Your task to perform on an android device: Go to battery settings Image 0: 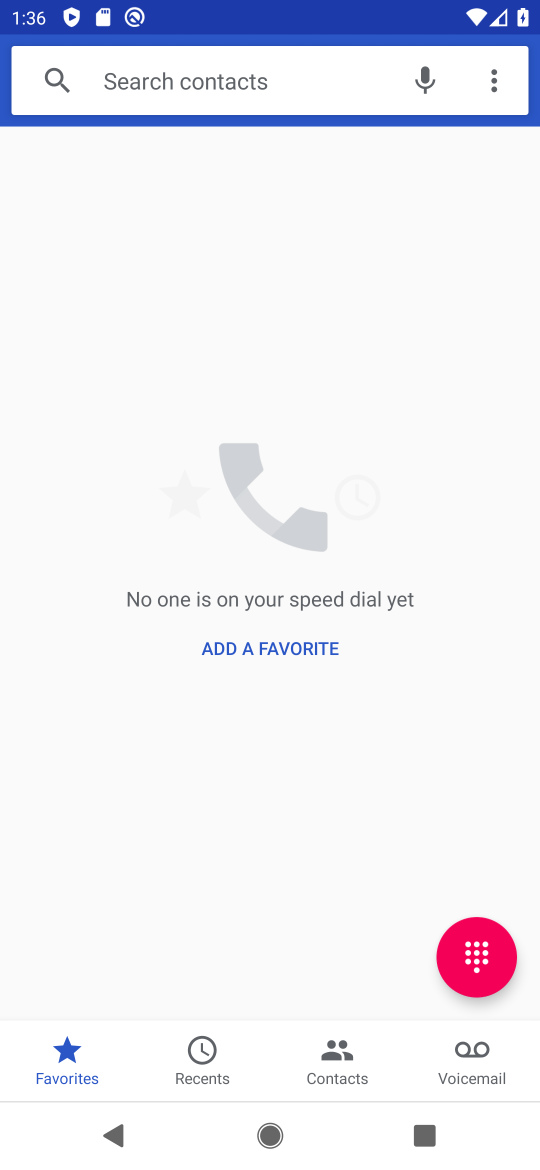
Step 0: press home button
Your task to perform on an android device: Go to battery settings Image 1: 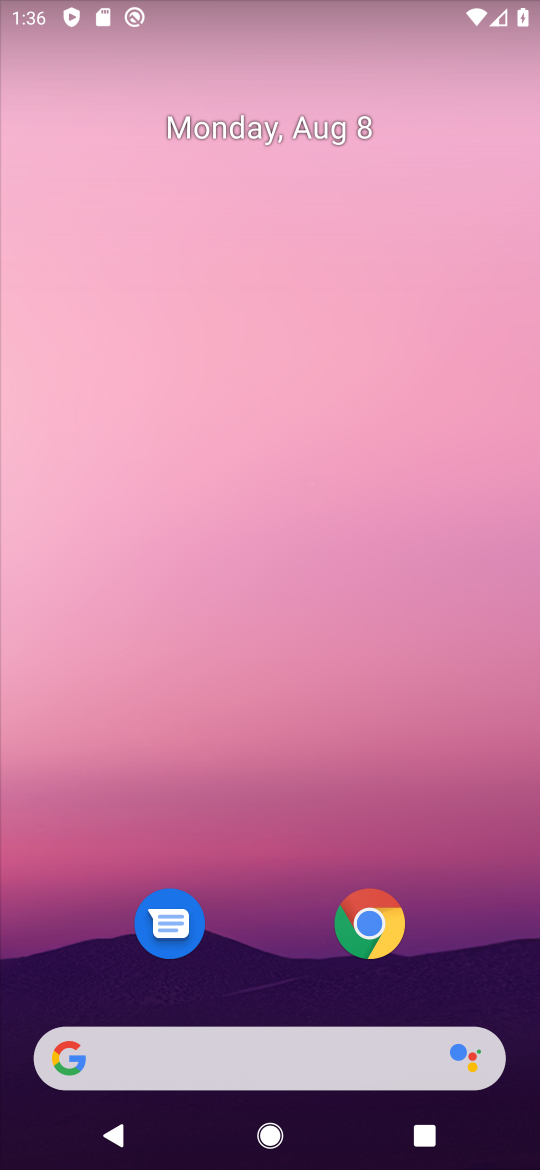
Step 1: drag from (225, 787) to (357, 110)
Your task to perform on an android device: Go to battery settings Image 2: 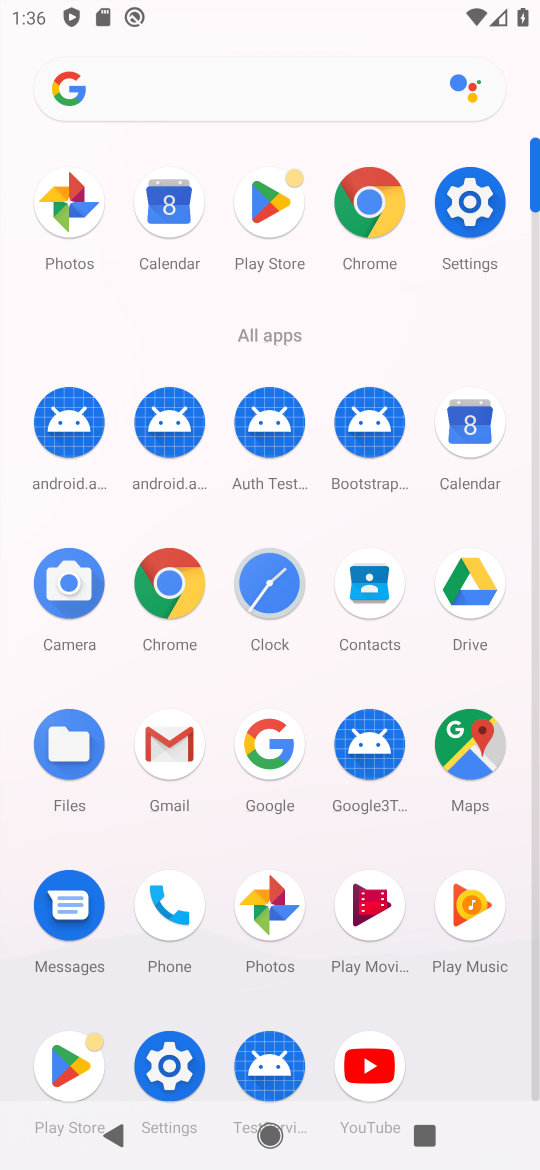
Step 2: click (476, 221)
Your task to perform on an android device: Go to battery settings Image 3: 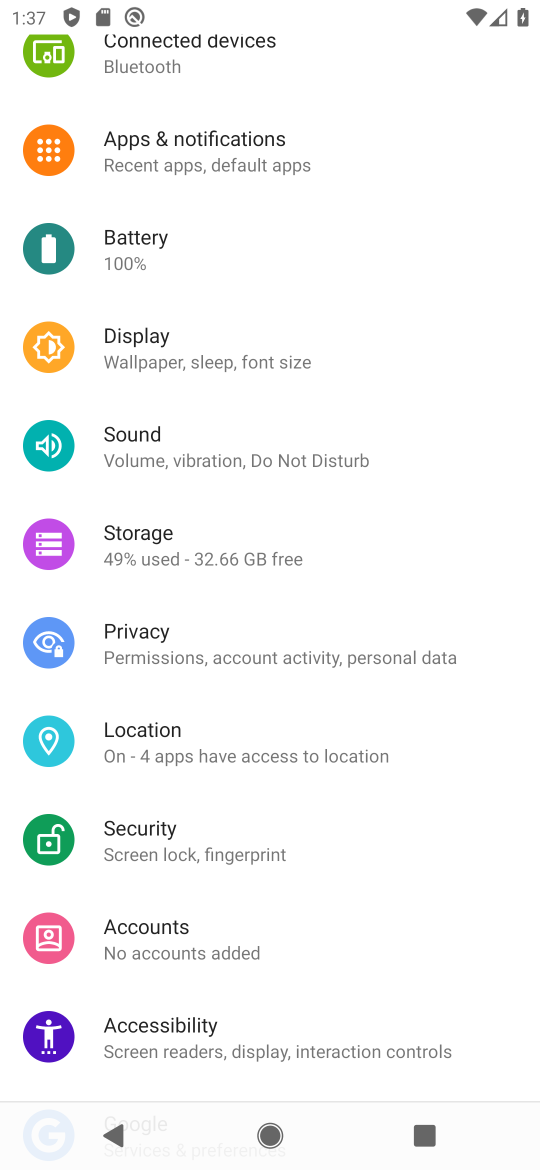
Step 3: click (155, 249)
Your task to perform on an android device: Go to battery settings Image 4: 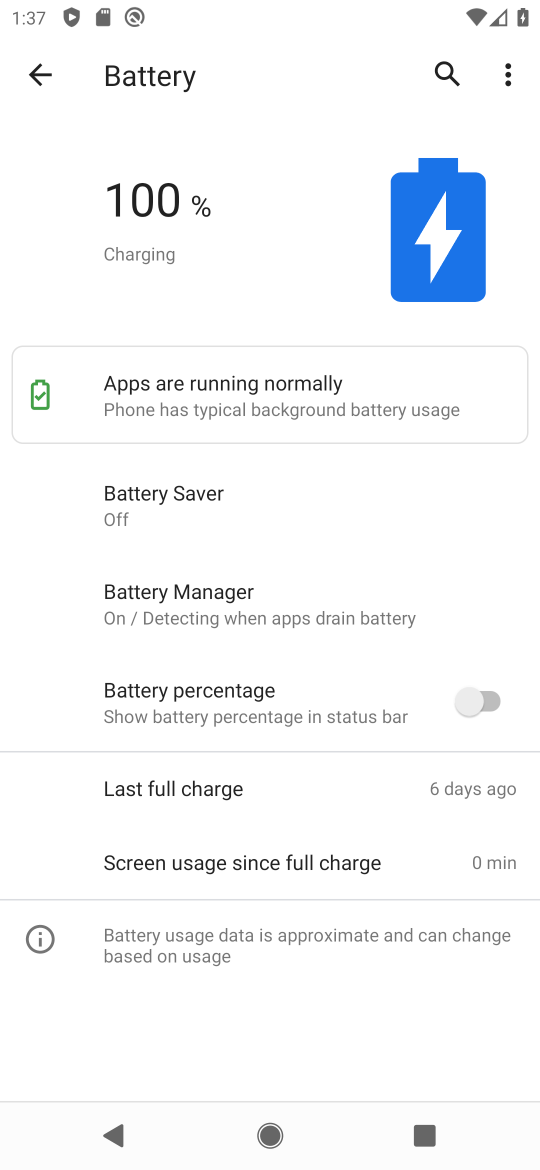
Step 4: task complete